Your task to perform on an android device: Go to Amazon Image 0: 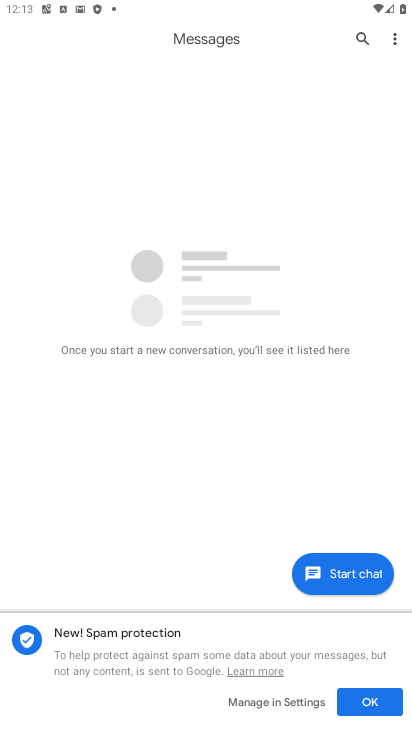
Step 0: press back button
Your task to perform on an android device: Go to Amazon Image 1: 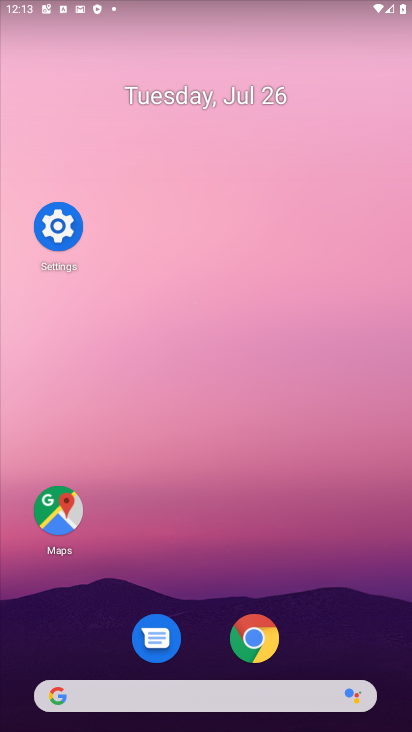
Step 1: click (252, 642)
Your task to perform on an android device: Go to Amazon Image 2: 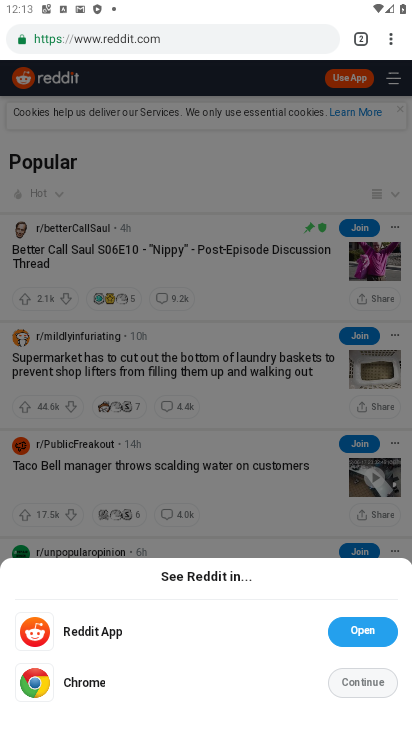
Step 2: click (373, 33)
Your task to perform on an android device: Go to Amazon Image 3: 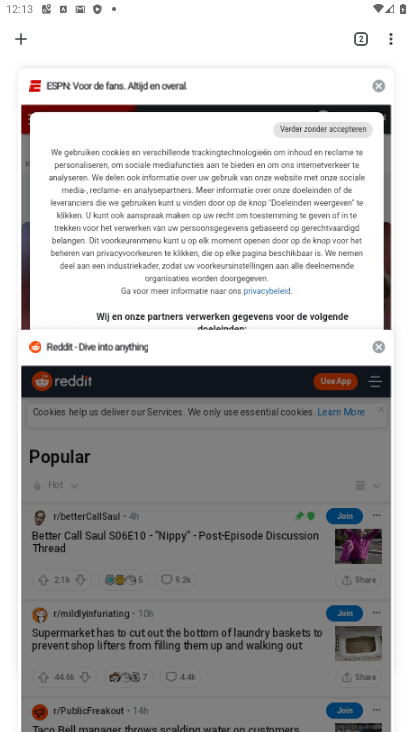
Step 3: click (21, 36)
Your task to perform on an android device: Go to Amazon Image 4: 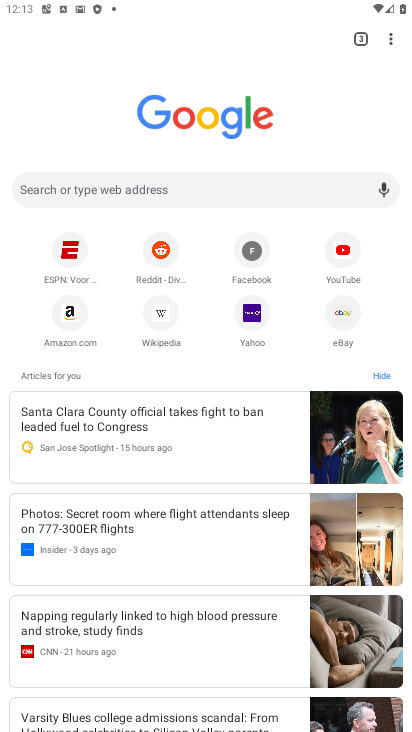
Step 4: click (78, 318)
Your task to perform on an android device: Go to Amazon Image 5: 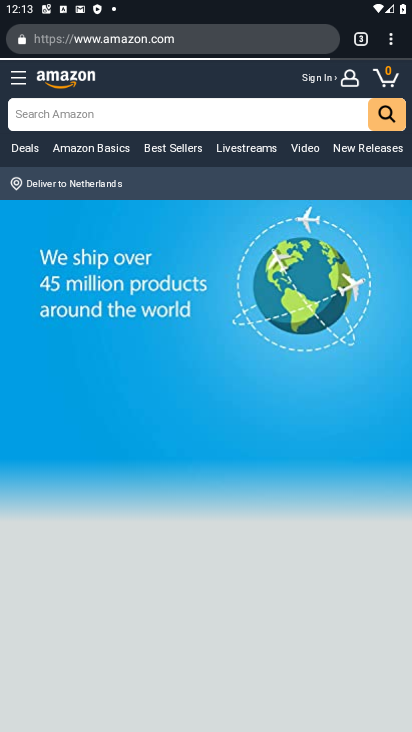
Step 5: task complete